Your task to perform on an android device: Go to calendar. Show me events next week Image 0: 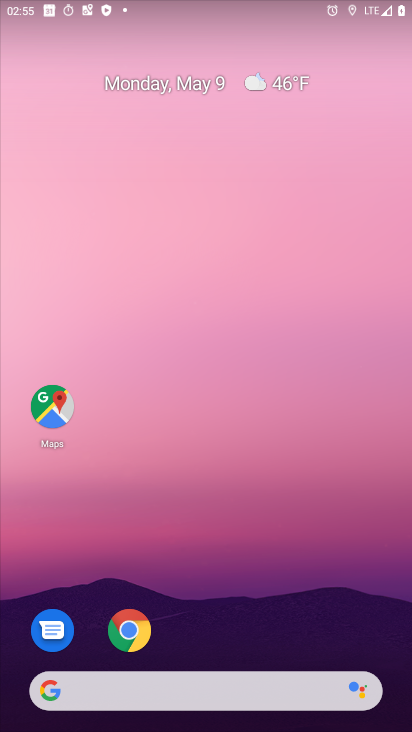
Step 0: drag from (237, 589) to (249, 72)
Your task to perform on an android device: Go to calendar. Show me events next week Image 1: 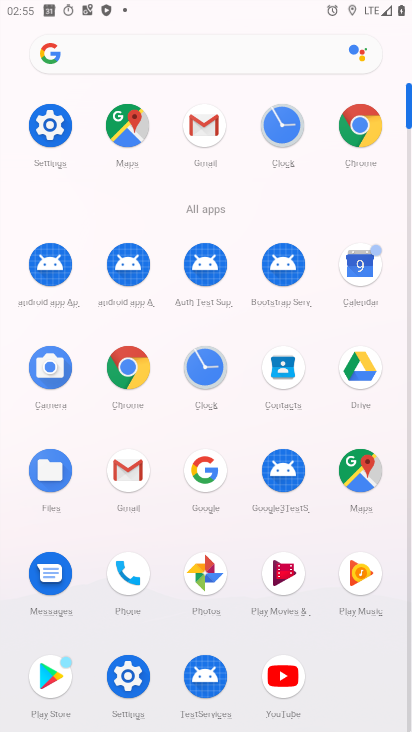
Step 1: click (355, 264)
Your task to perform on an android device: Go to calendar. Show me events next week Image 2: 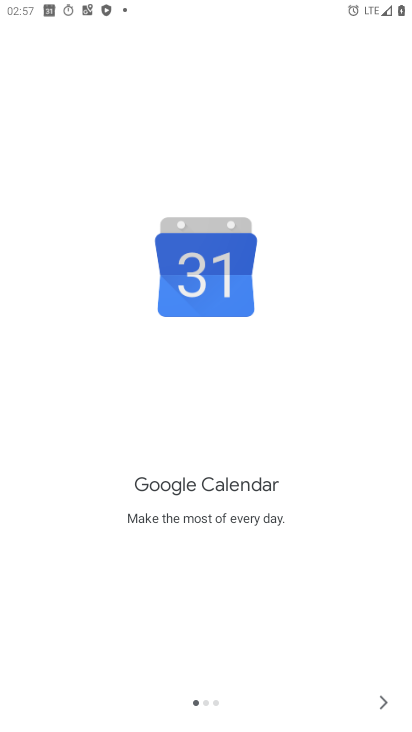
Step 2: click (374, 705)
Your task to perform on an android device: Go to calendar. Show me events next week Image 3: 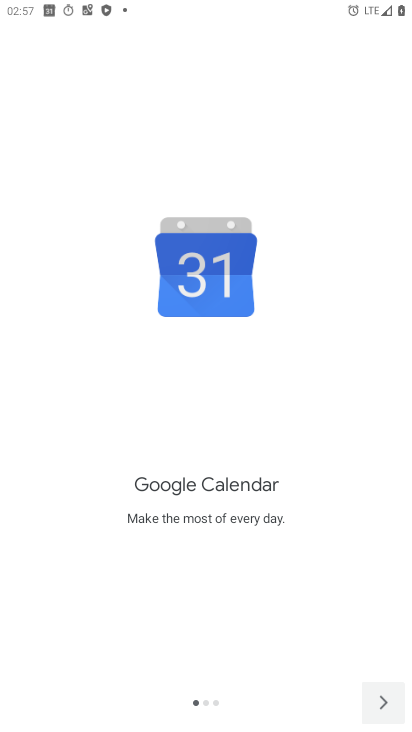
Step 3: click (374, 705)
Your task to perform on an android device: Go to calendar. Show me events next week Image 4: 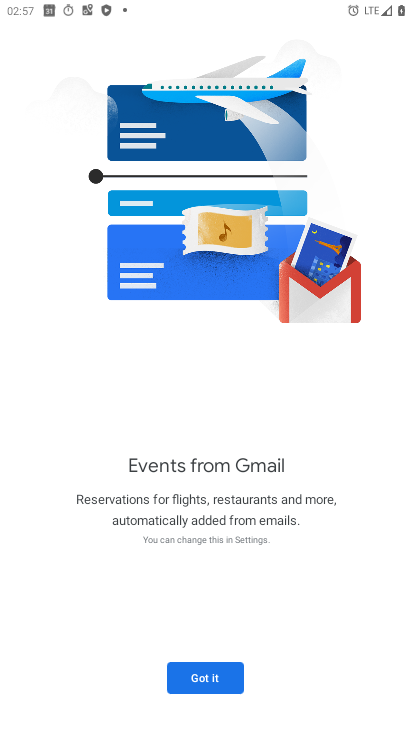
Step 4: click (220, 684)
Your task to perform on an android device: Go to calendar. Show me events next week Image 5: 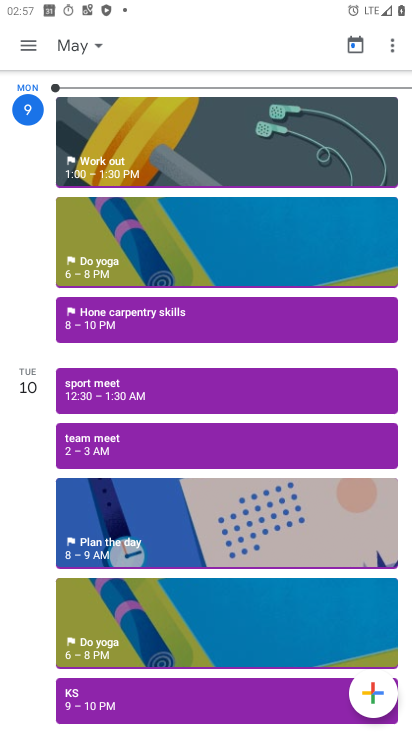
Step 5: click (91, 45)
Your task to perform on an android device: Go to calendar. Show me events next week Image 6: 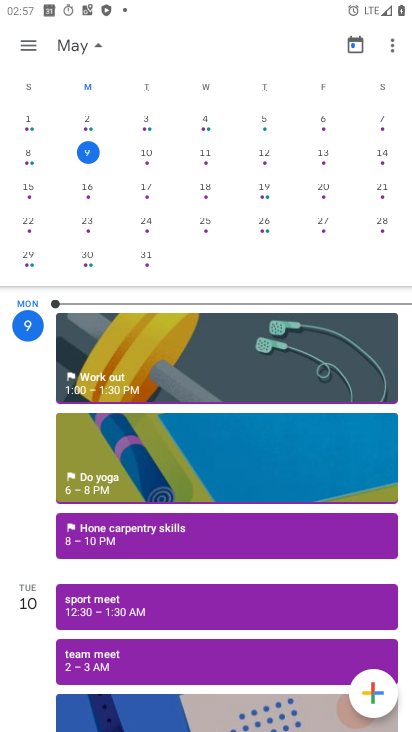
Step 6: drag from (289, 149) to (129, 136)
Your task to perform on an android device: Go to calendar. Show me events next week Image 7: 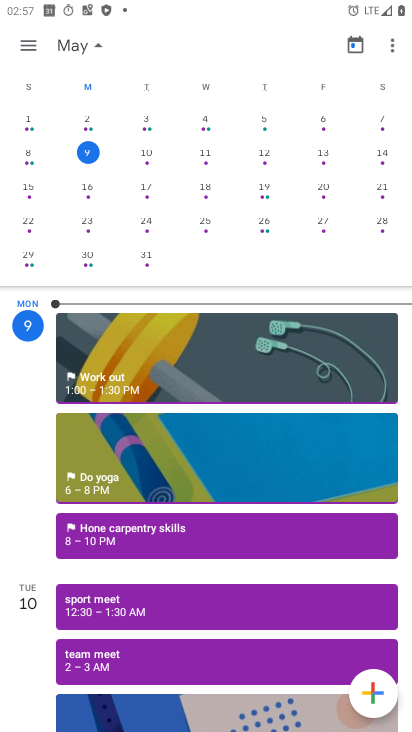
Step 7: drag from (392, 177) to (30, 186)
Your task to perform on an android device: Go to calendar. Show me events next week Image 8: 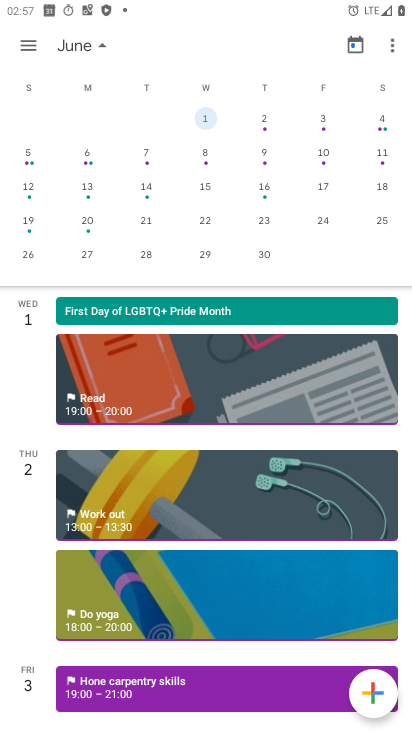
Step 8: drag from (34, 197) to (406, 205)
Your task to perform on an android device: Go to calendar. Show me events next week Image 9: 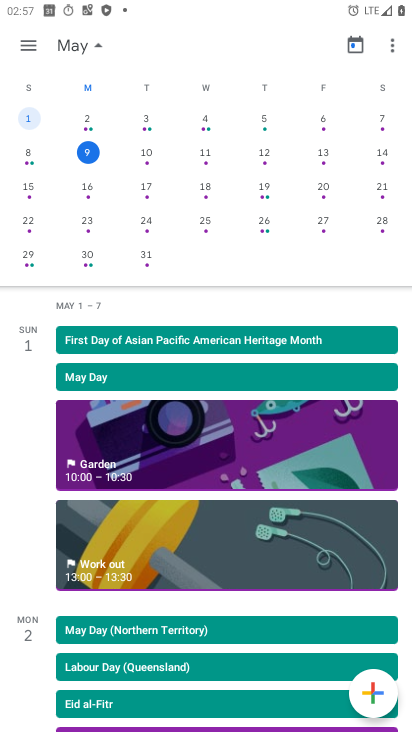
Step 9: click (120, 208)
Your task to perform on an android device: Go to calendar. Show me events next week Image 10: 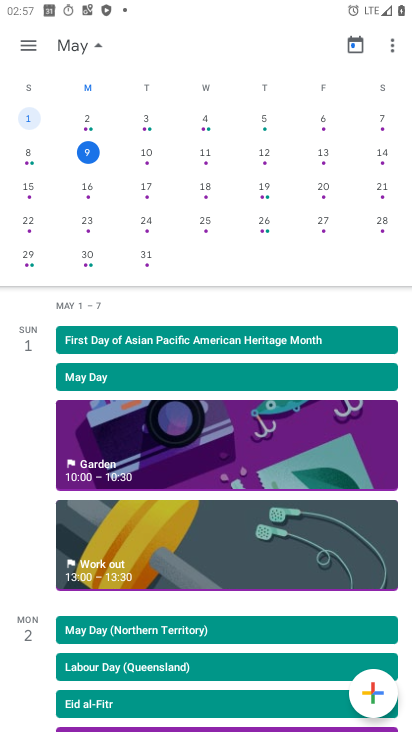
Step 10: click (85, 182)
Your task to perform on an android device: Go to calendar. Show me events next week Image 11: 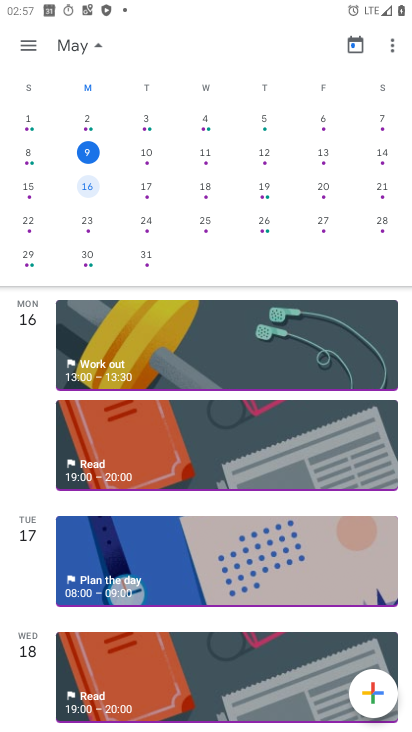
Step 11: task complete